Your task to perform on an android device: What is the news today? Image 0: 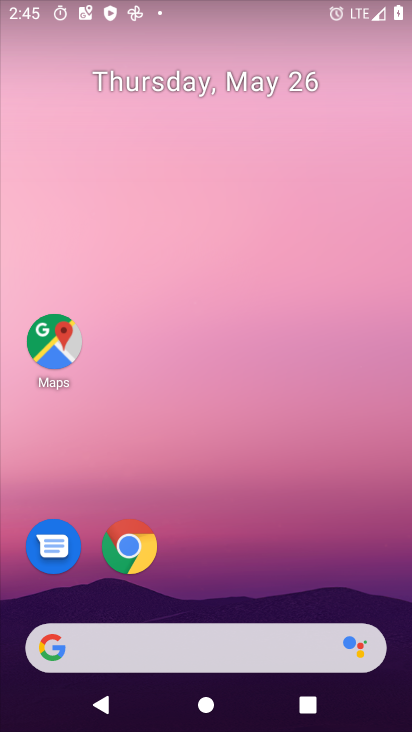
Step 0: click (130, 549)
Your task to perform on an android device: What is the news today? Image 1: 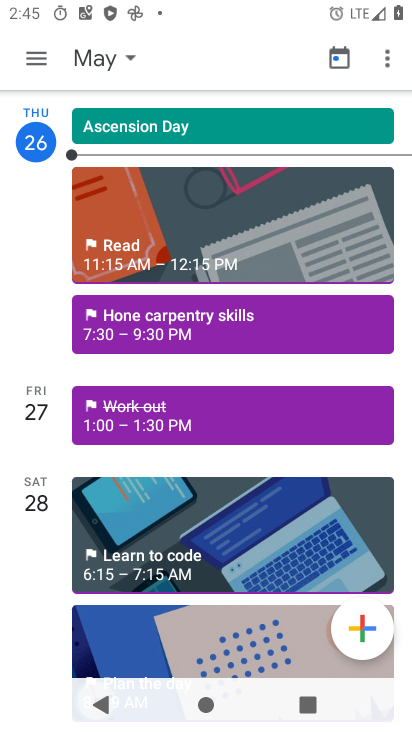
Step 1: press home button
Your task to perform on an android device: What is the news today? Image 2: 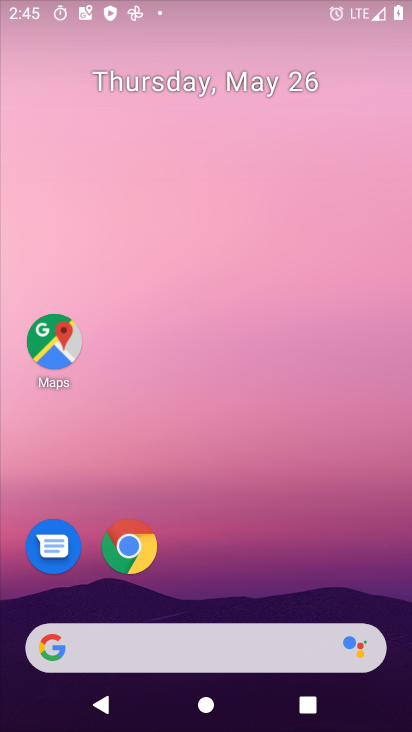
Step 2: drag from (212, 528) to (276, 98)
Your task to perform on an android device: What is the news today? Image 3: 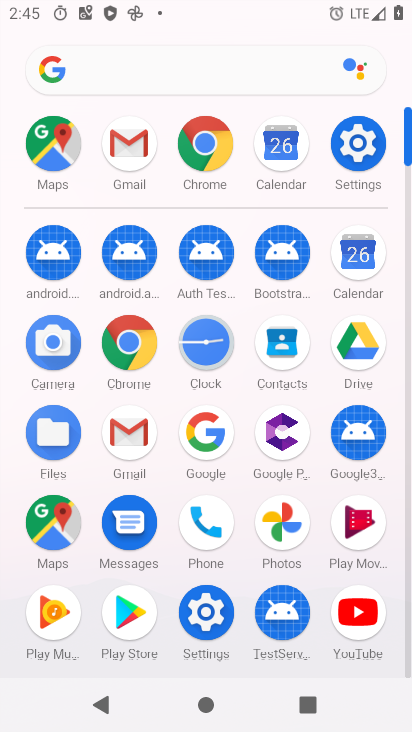
Step 3: click (201, 437)
Your task to perform on an android device: What is the news today? Image 4: 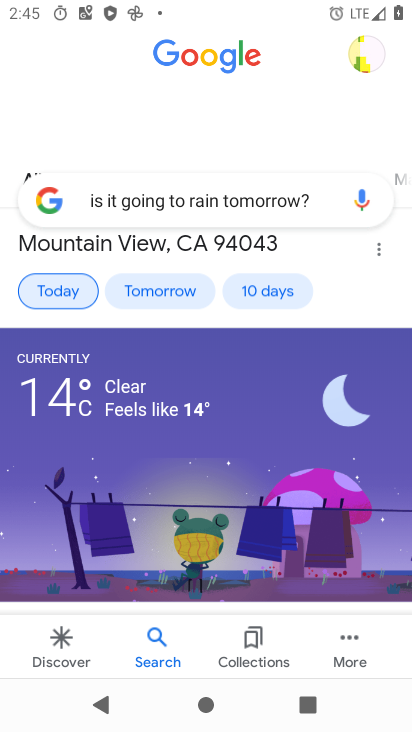
Step 4: click (278, 197)
Your task to perform on an android device: What is the news today? Image 5: 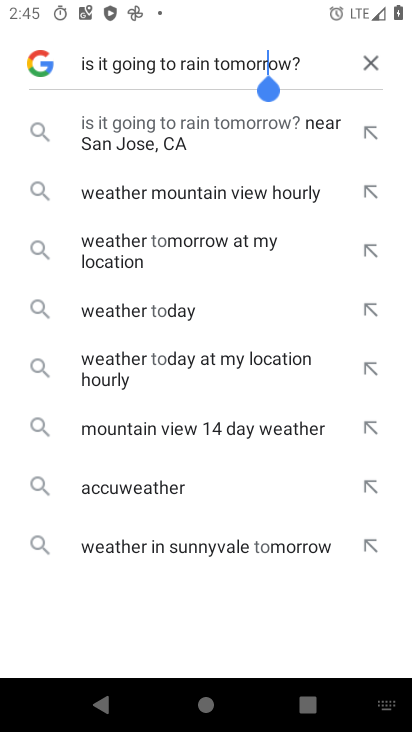
Step 5: click (370, 59)
Your task to perform on an android device: What is the news today? Image 6: 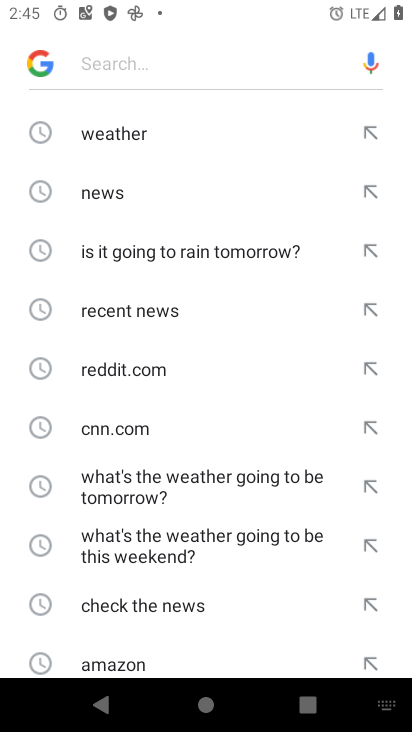
Step 6: click (115, 190)
Your task to perform on an android device: What is the news today? Image 7: 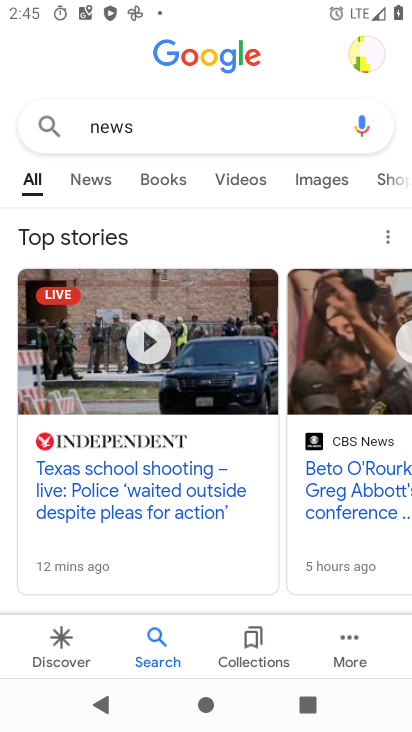
Step 7: task complete